Your task to perform on an android device: What's the weather going to be tomorrow? Image 0: 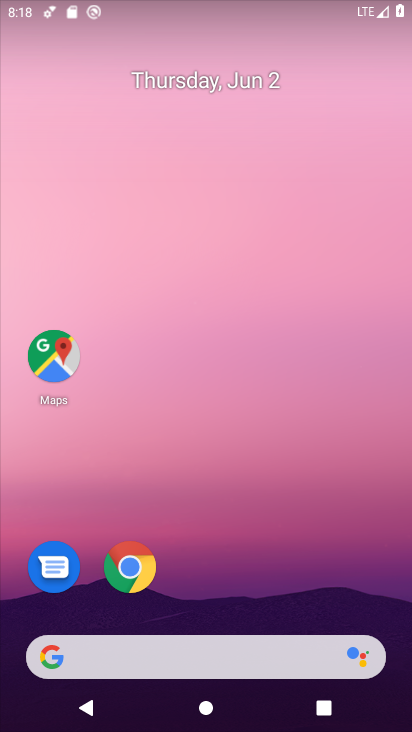
Step 0: click (227, 658)
Your task to perform on an android device: What's the weather going to be tomorrow? Image 1: 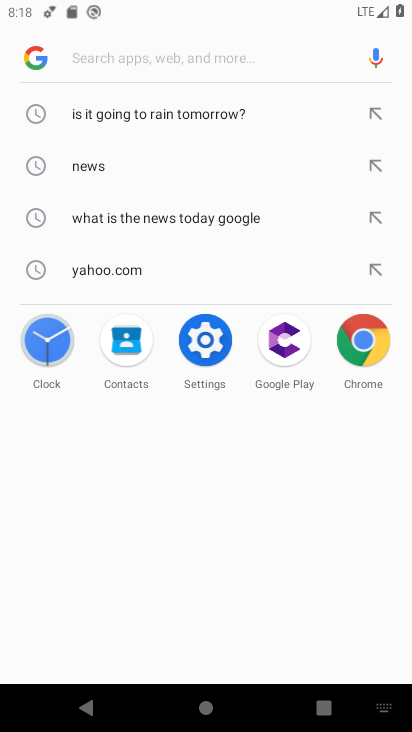
Step 1: type "weather"
Your task to perform on an android device: What's the weather going to be tomorrow? Image 2: 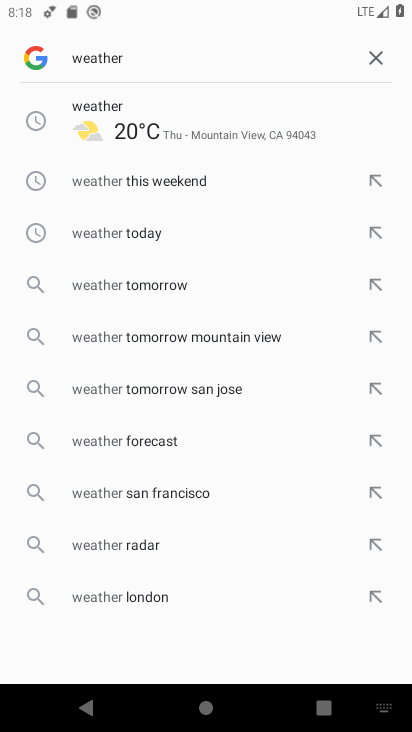
Step 2: click (163, 141)
Your task to perform on an android device: What's the weather going to be tomorrow? Image 3: 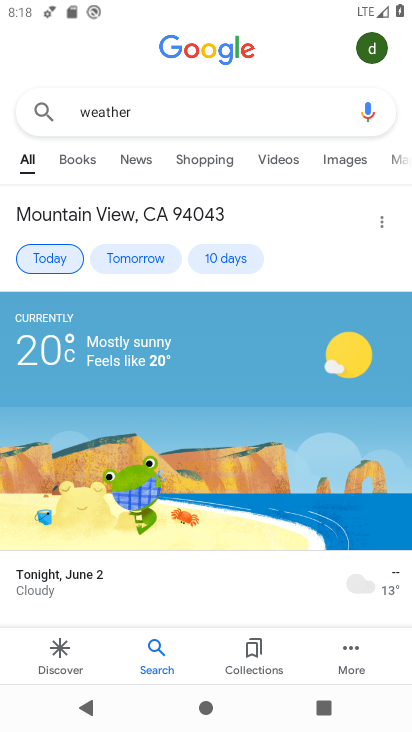
Step 3: click (144, 253)
Your task to perform on an android device: What's the weather going to be tomorrow? Image 4: 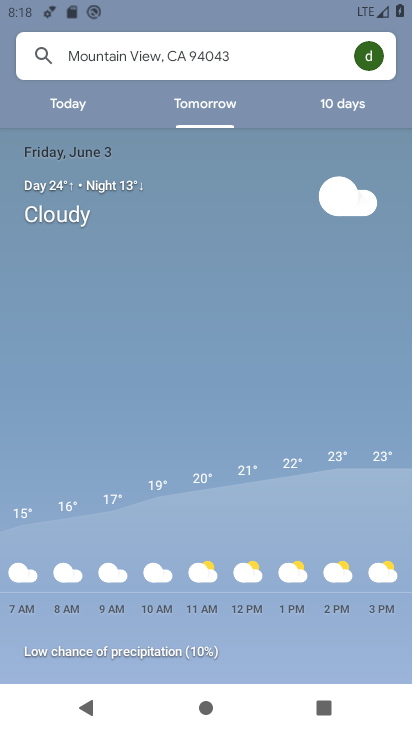
Step 4: task complete